Your task to perform on an android device: Open settings Image 0: 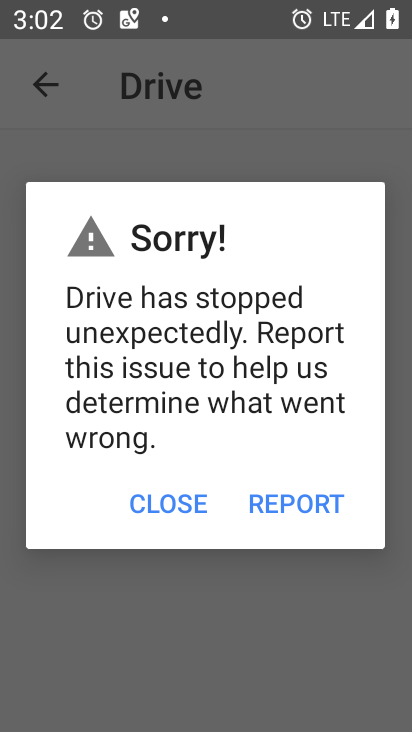
Step 0: press back button
Your task to perform on an android device: Open settings Image 1: 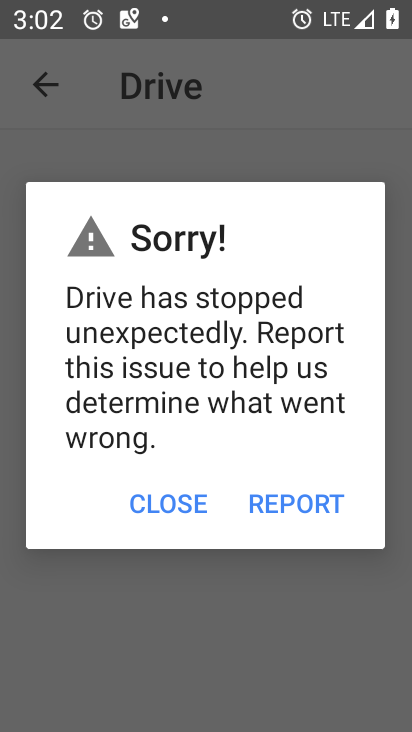
Step 1: press home button
Your task to perform on an android device: Open settings Image 2: 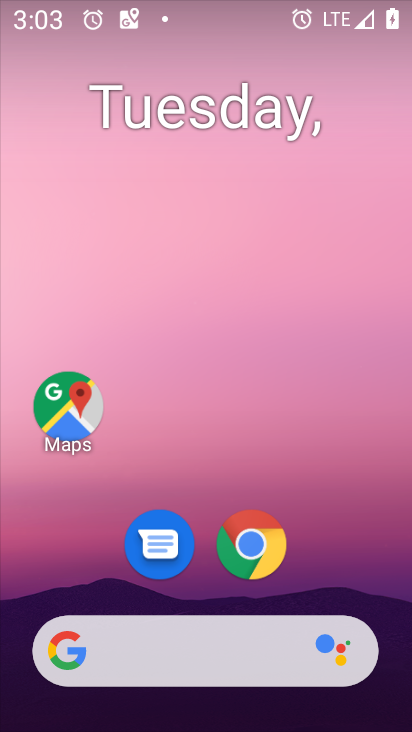
Step 2: drag from (353, 557) to (261, 28)
Your task to perform on an android device: Open settings Image 3: 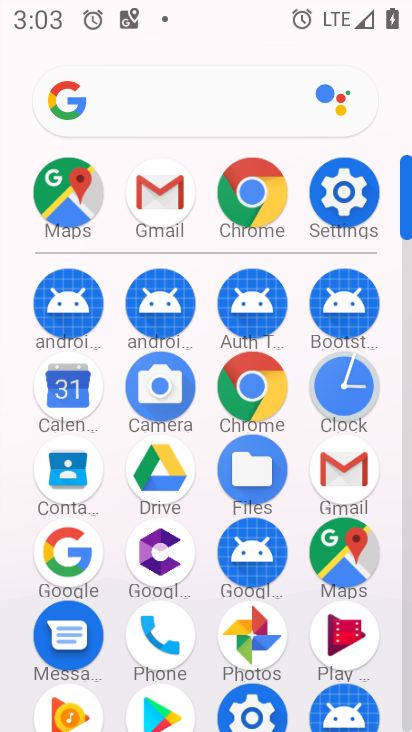
Step 3: click (339, 184)
Your task to perform on an android device: Open settings Image 4: 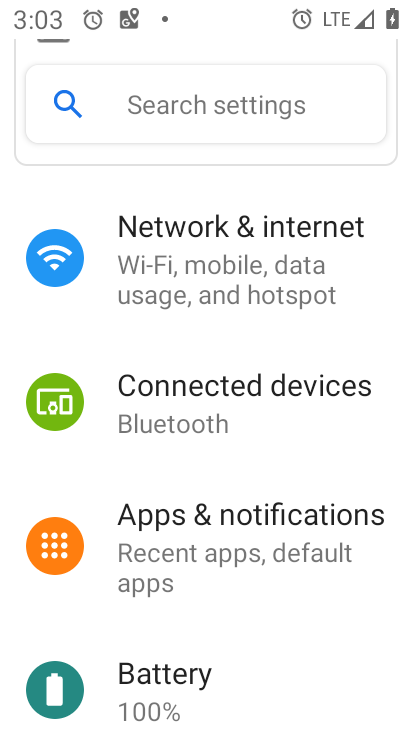
Step 4: task complete